Your task to perform on an android device: open wifi settings Image 0: 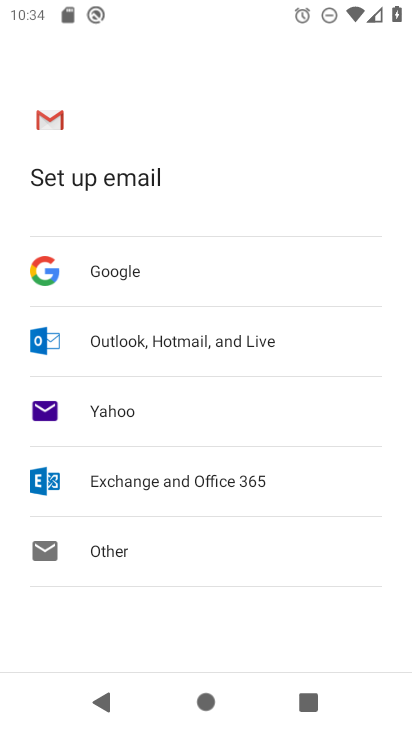
Step 0: press home button
Your task to perform on an android device: open wifi settings Image 1: 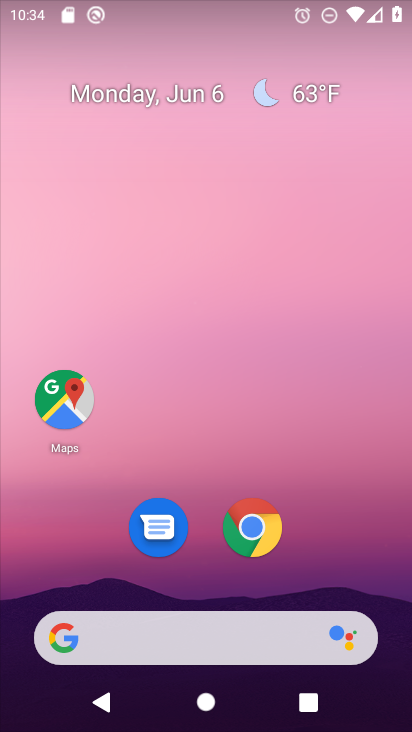
Step 1: drag from (344, 532) to (380, 121)
Your task to perform on an android device: open wifi settings Image 2: 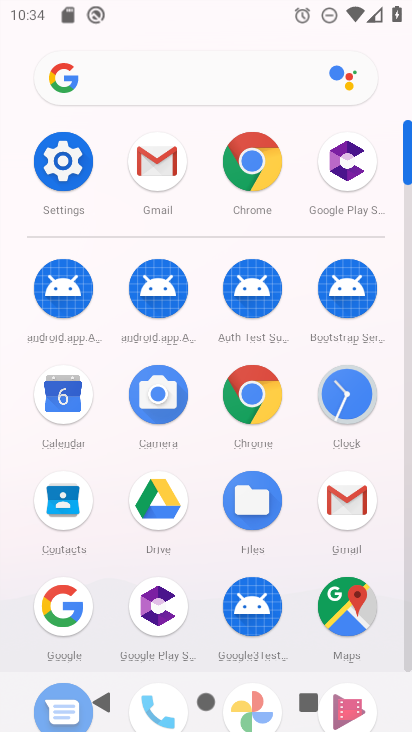
Step 2: click (73, 177)
Your task to perform on an android device: open wifi settings Image 3: 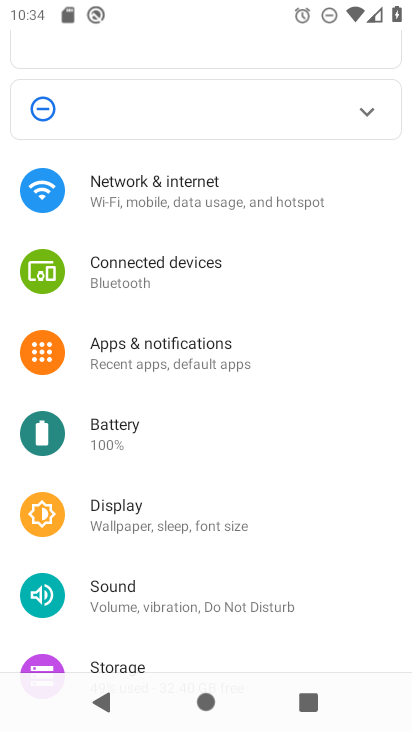
Step 3: drag from (339, 505) to (340, 415)
Your task to perform on an android device: open wifi settings Image 4: 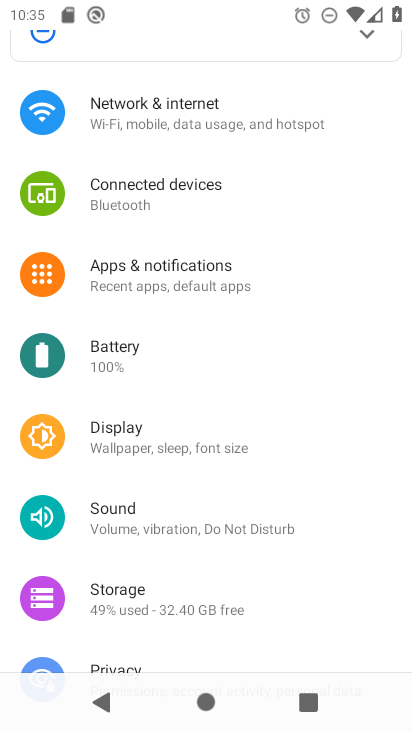
Step 4: drag from (359, 535) to (361, 426)
Your task to perform on an android device: open wifi settings Image 5: 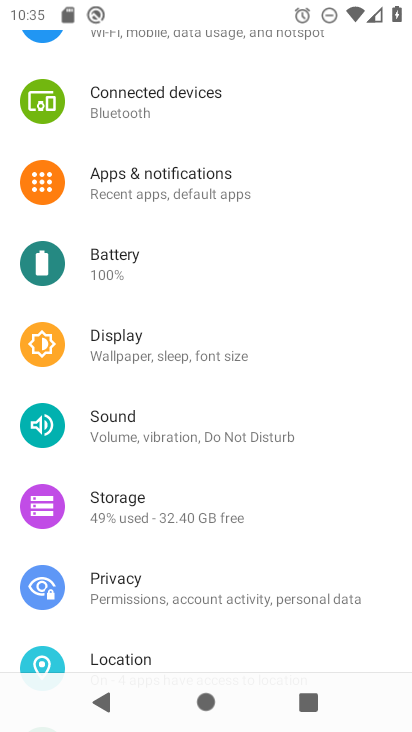
Step 5: drag from (355, 575) to (356, 418)
Your task to perform on an android device: open wifi settings Image 6: 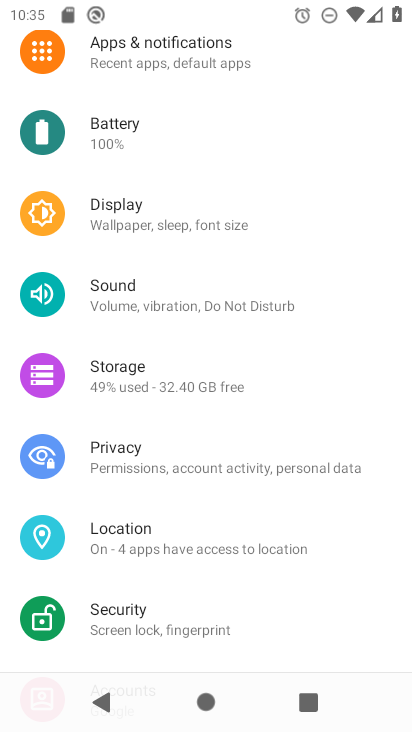
Step 6: drag from (353, 571) to (357, 433)
Your task to perform on an android device: open wifi settings Image 7: 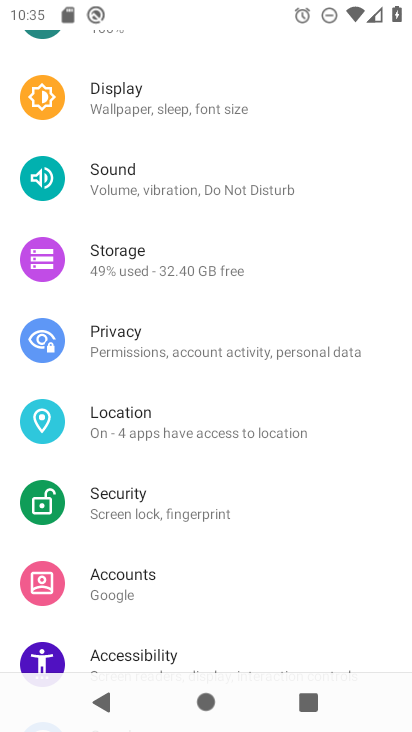
Step 7: drag from (355, 560) to (380, 397)
Your task to perform on an android device: open wifi settings Image 8: 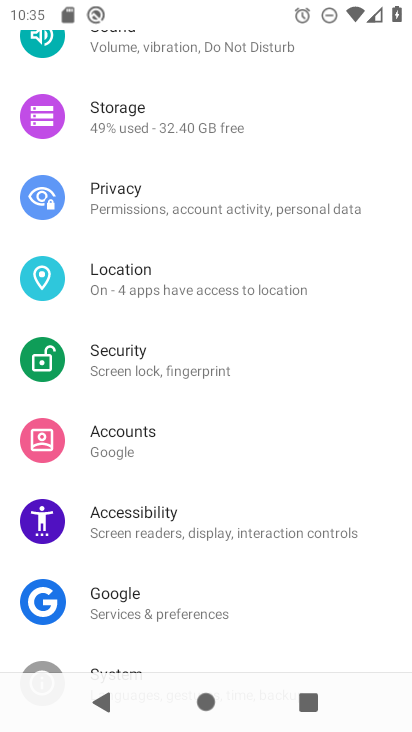
Step 8: drag from (345, 571) to (330, 371)
Your task to perform on an android device: open wifi settings Image 9: 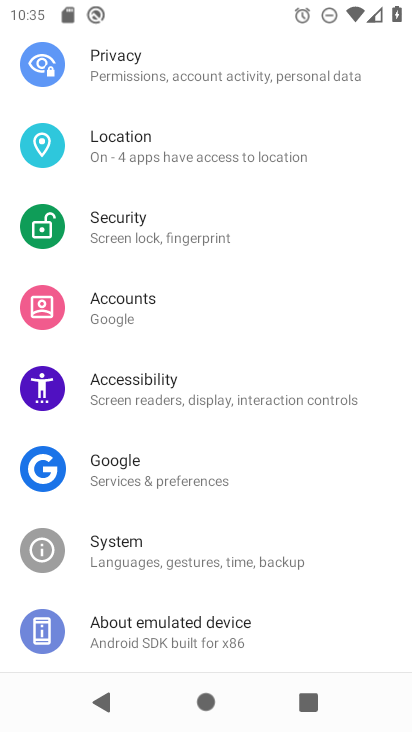
Step 9: drag from (359, 259) to (359, 401)
Your task to perform on an android device: open wifi settings Image 10: 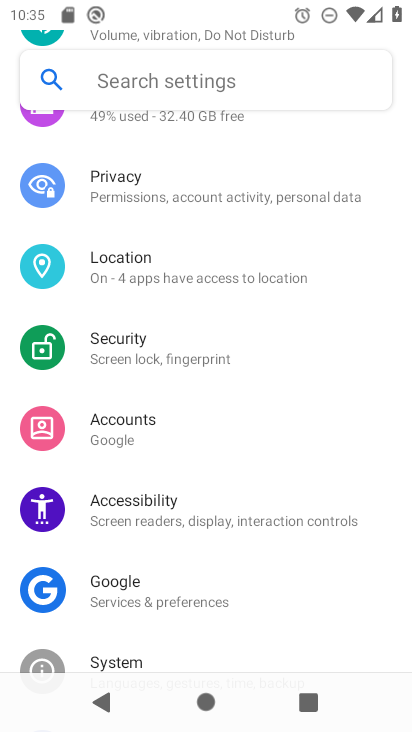
Step 10: drag from (364, 236) to (371, 356)
Your task to perform on an android device: open wifi settings Image 11: 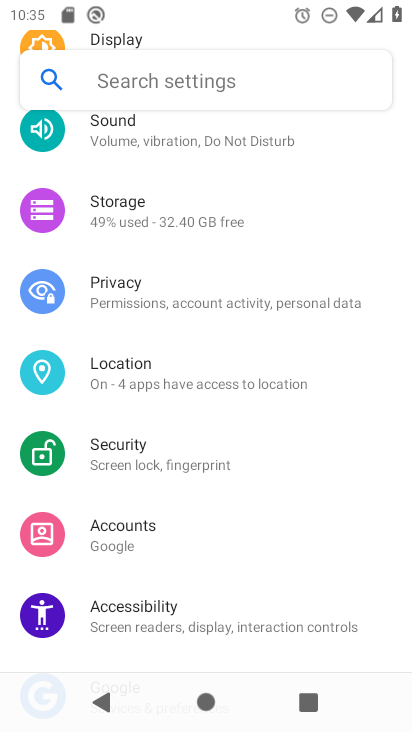
Step 11: drag from (366, 232) to (371, 358)
Your task to perform on an android device: open wifi settings Image 12: 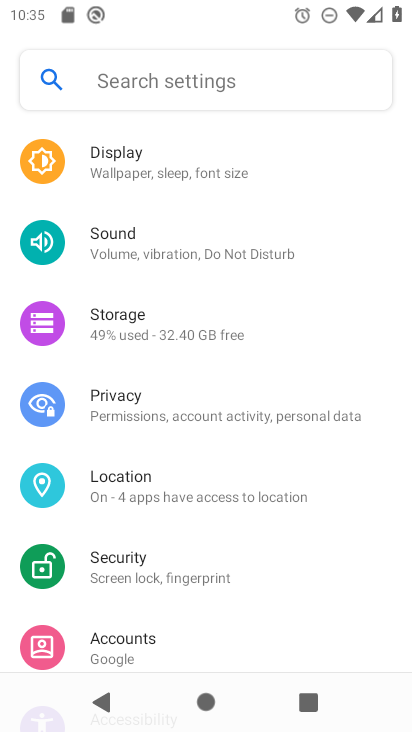
Step 12: drag from (348, 196) to (360, 327)
Your task to perform on an android device: open wifi settings Image 13: 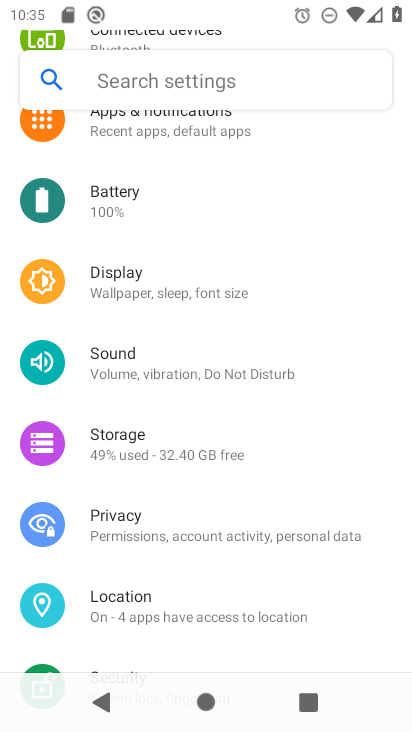
Step 13: drag from (351, 206) to (367, 337)
Your task to perform on an android device: open wifi settings Image 14: 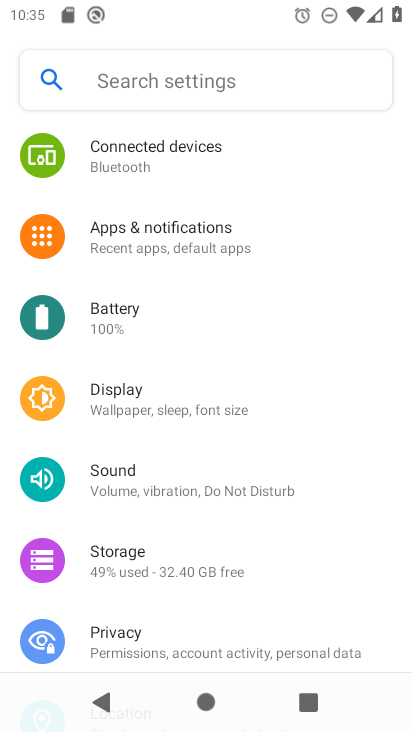
Step 14: drag from (355, 210) to (346, 351)
Your task to perform on an android device: open wifi settings Image 15: 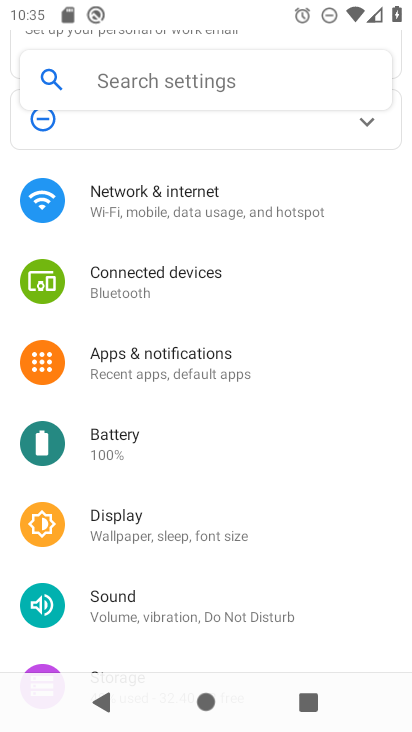
Step 15: drag from (359, 203) to (352, 341)
Your task to perform on an android device: open wifi settings Image 16: 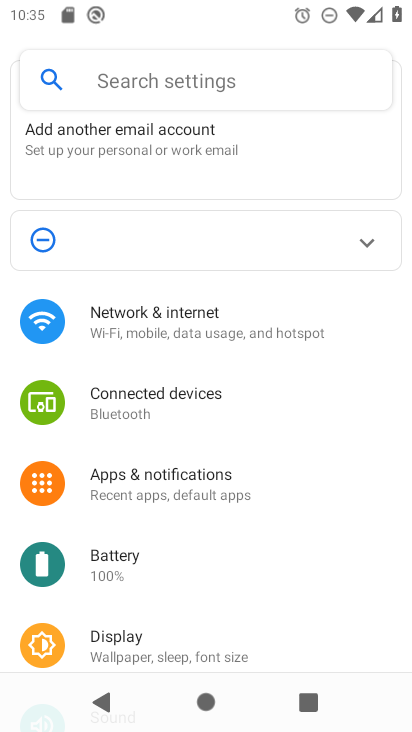
Step 16: click (270, 323)
Your task to perform on an android device: open wifi settings Image 17: 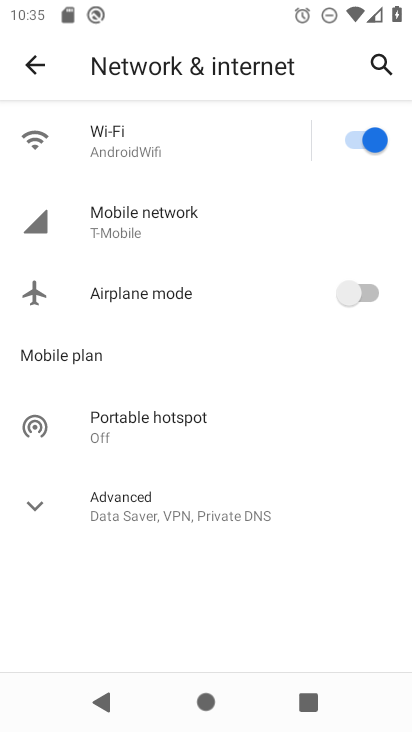
Step 17: click (169, 143)
Your task to perform on an android device: open wifi settings Image 18: 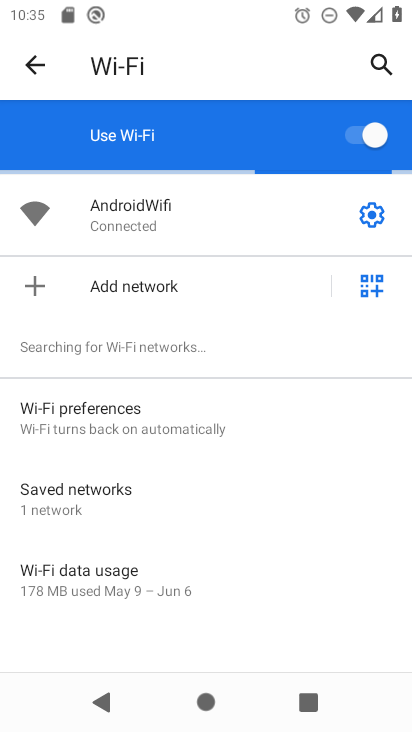
Step 18: task complete